Your task to perform on an android device: Show me productivity apps on the Play Store Image 0: 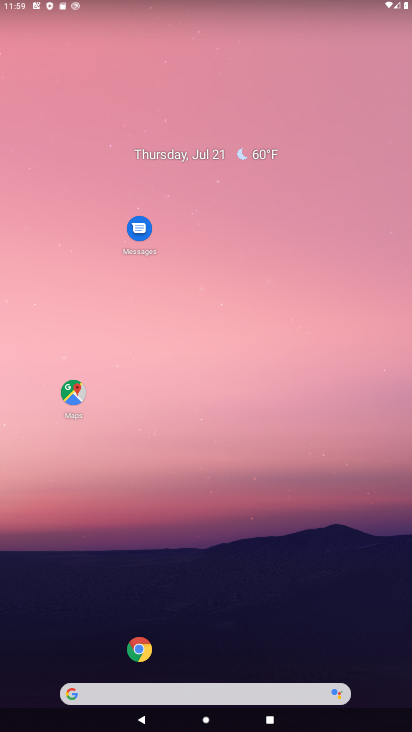
Step 0: drag from (31, 294) to (31, 105)
Your task to perform on an android device: Show me productivity apps on the Play Store Image 1: 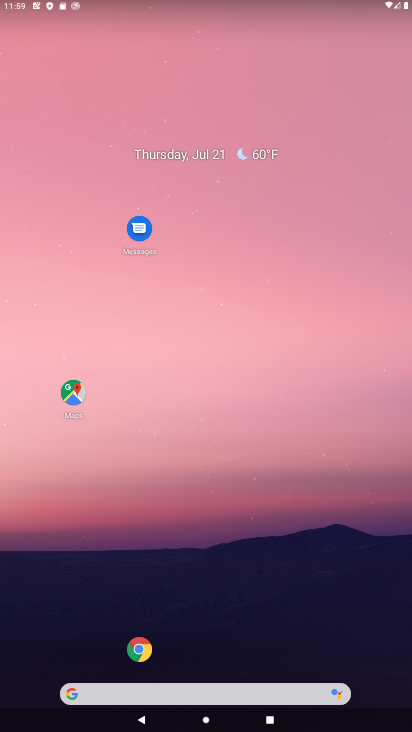
Step 1: drag from (38, 407) to (268, 51)
Your task to perform on an android device: Show me productivity apps on the Play Store Image 2: 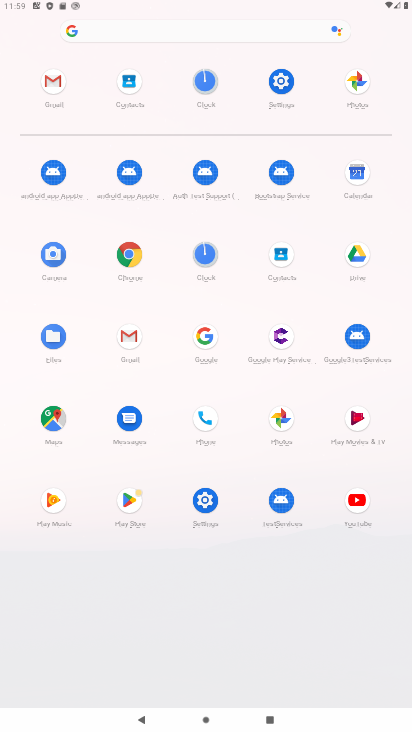
Step 2: click (142, 494)
Your task to perform on an android device: Show me productivity apps on the Play Store Image 3: 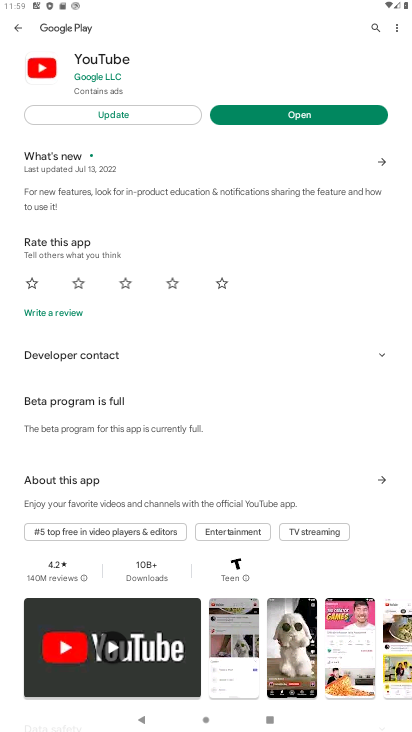
Step 3: click (8, 29)
Your task to perform on an android device: Show me productivity apps on the Play Store Image 4: 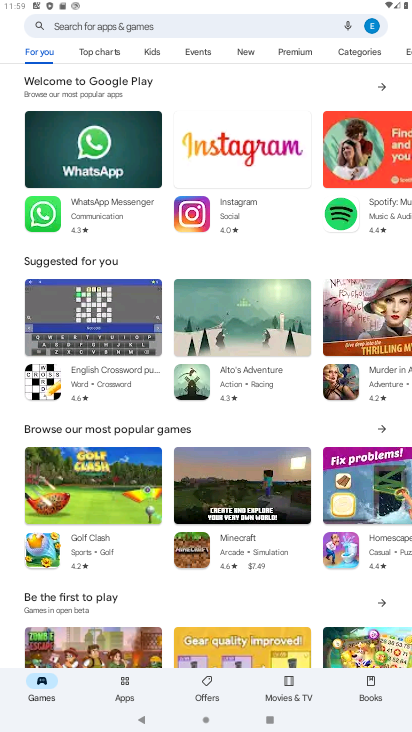
Step 4: click (84, 24)
Your task to perform on an android device: Show me productivity apps on the Play Store Image 5: 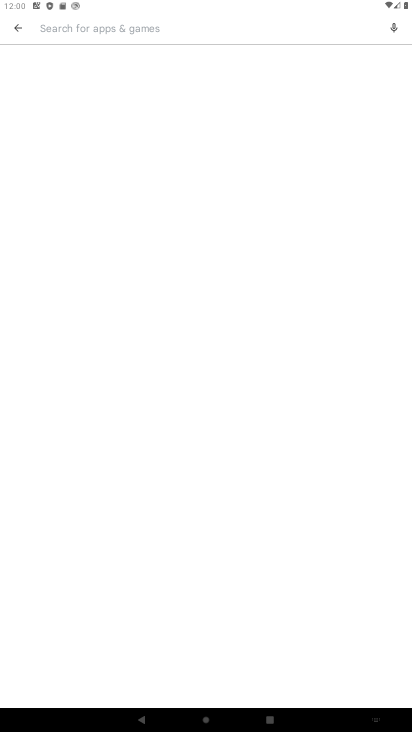
Step 5: type "productivity apps "
Your task to perform on an android device: Show me productivity apps on the Play Store Image 6: 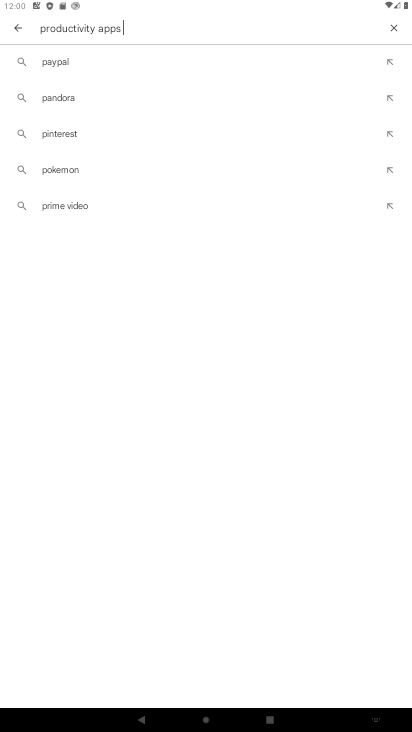
Step 6: type ""
Your task to perform on an android device: Show me productivity apps on the Play Store Image 7: 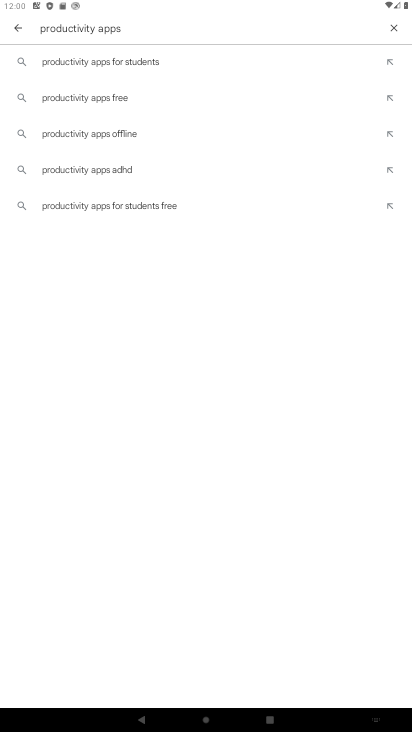
Step 7: type ""
Your task to perform on an android device: Show me productivity apps on the Play Store Image 8: 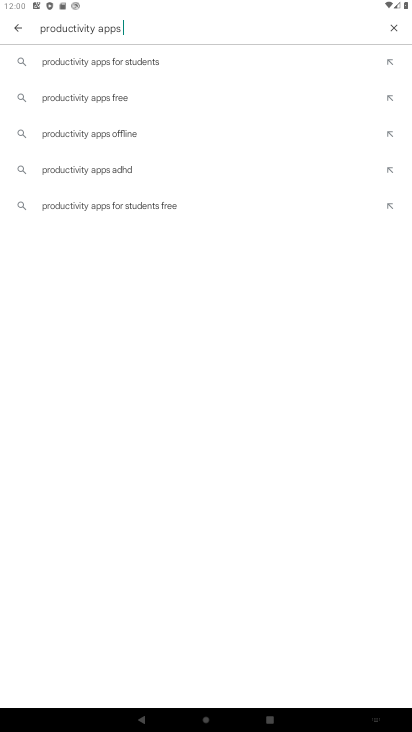
Step 8: type ""
Your task to perform on an android device: Show me productivity apps on the Play Store Image 9: 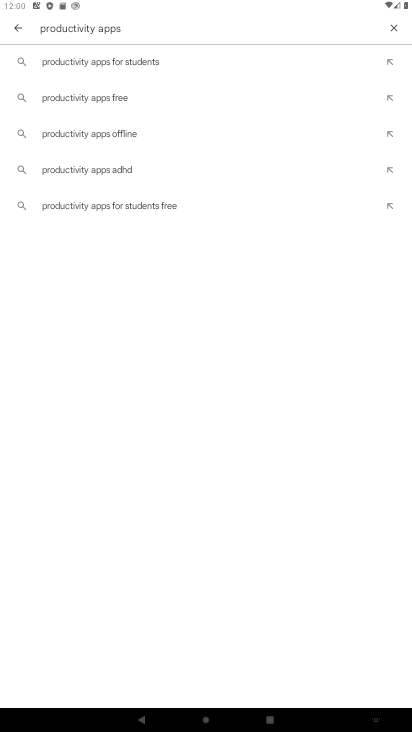
Step 9: type ""
Your task to perform on an android device: Show me productivity apps on the Play Store Image 10: 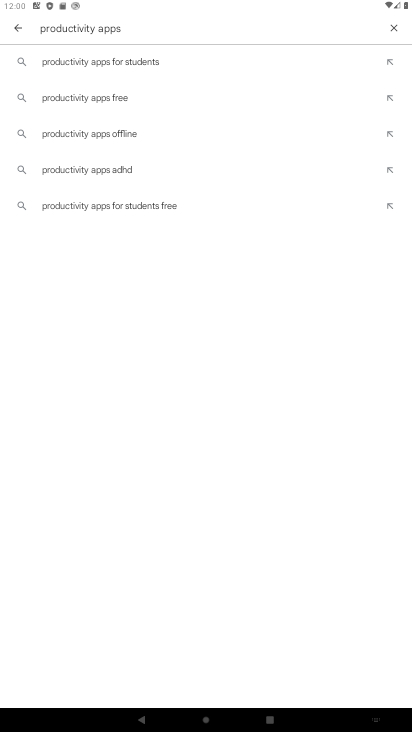
Step 10: task complete